Your task to perform on an android device: Show the shopping cart on ebay. Add panasonic triple a to the cart on ebay Image 0: 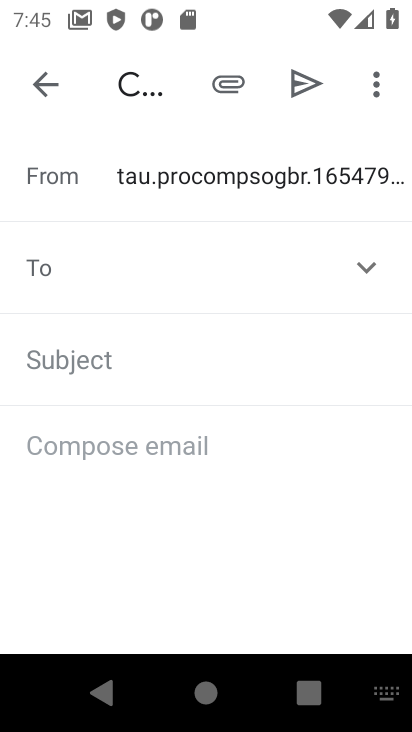
Step 0: press home button
Your task to perform on an android device: Show the shopping cart on ebay. Add panasonic triple a to the cart on ebay Image 1: 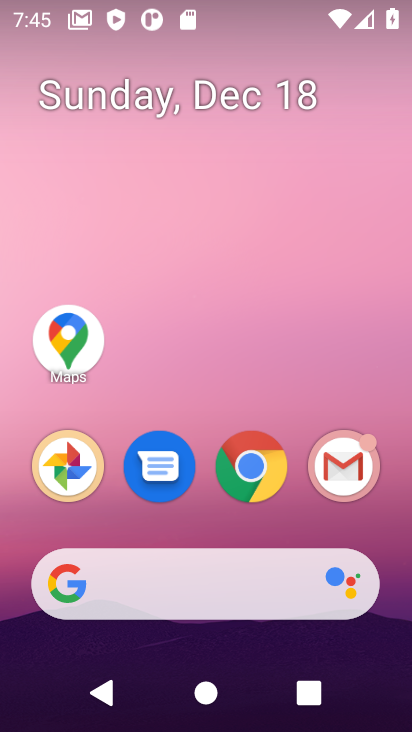
Step 1: click (253, 457)
Your task to perform on an android device: Show the shopping cart on ebay. Add panasonic triple a to the cart on ebay Image 2: 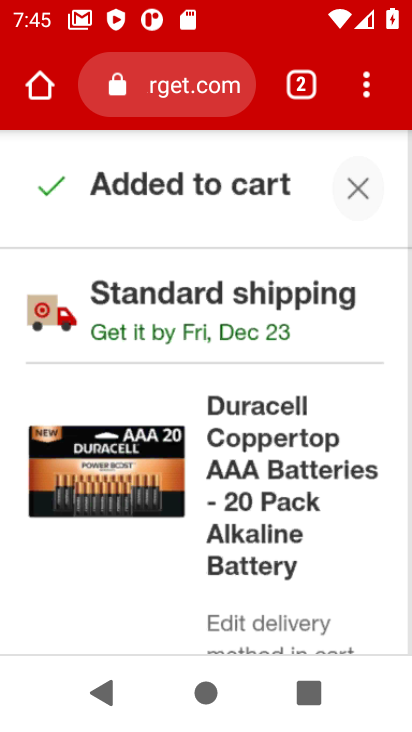
Step 2: click (174, 86)
Your task to perform on an android device: Show the shopping cart on ebay. Add panasonic triple a to the cart on ebay Image 3: 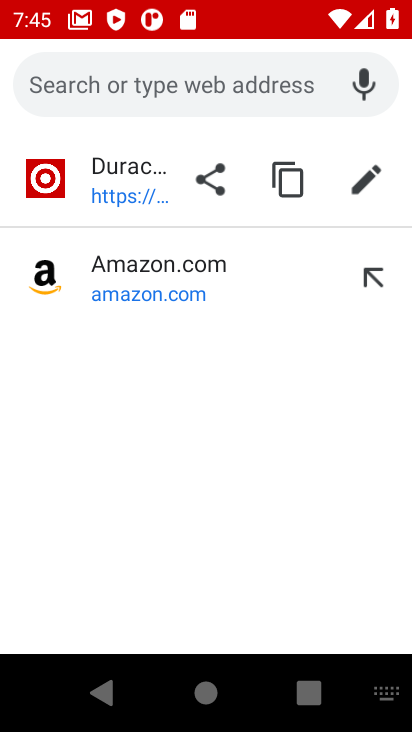
Step 3: type "EBAY"
Your task to perform on an android device: Show the shopping cart on ebay. Add panasonic triple a to the cart on ebay Image 4: 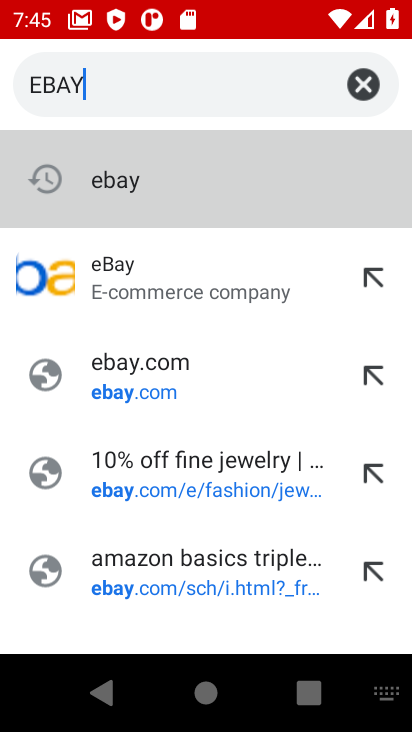
Step 4: click (173, 286)
Your task to perform on an android device: Show the shopping cart on ebay. Add panasonic triple a to the cart on ebay Image 5: 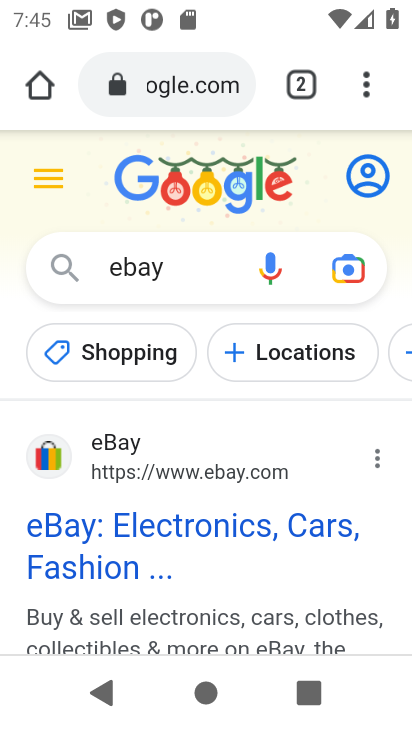
Step 5: click (136, 527)
Your task to perform on an android device: Show the shopping cart on ebay. Add panasonic triple a to the cart on ebay Image 6: 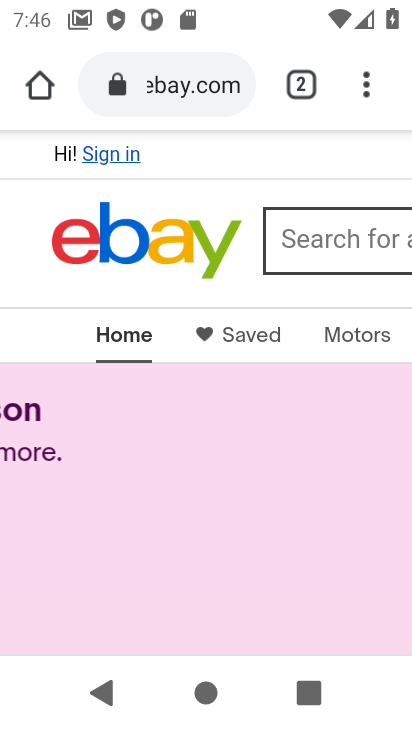
Step 6: click (348, 230)
Your task to perform on an android device: Show the shopping cart on ebay. Add panasonic triple a to the cart on ebay Image 7: 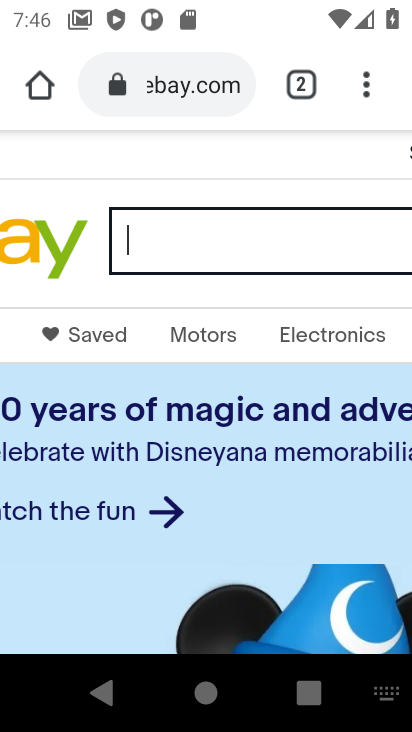
Step 7: type "panasonic triple a"
Your task to perform on an android device: Show the shopping cart on ebay. Add panasonic triple a to the cart on ebay Image 8: 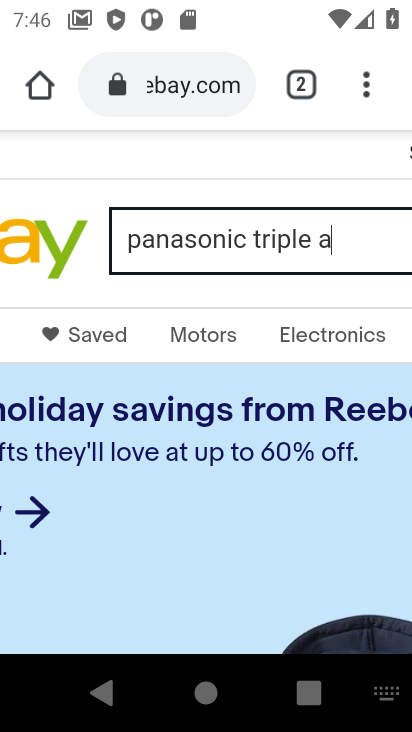
Step 8: drag from (381, 252) to (84, 226)
Your task to perform on an android device: Show the shopping cart on ebay. Add panasonic triple a to the cart on ebay Image 9: 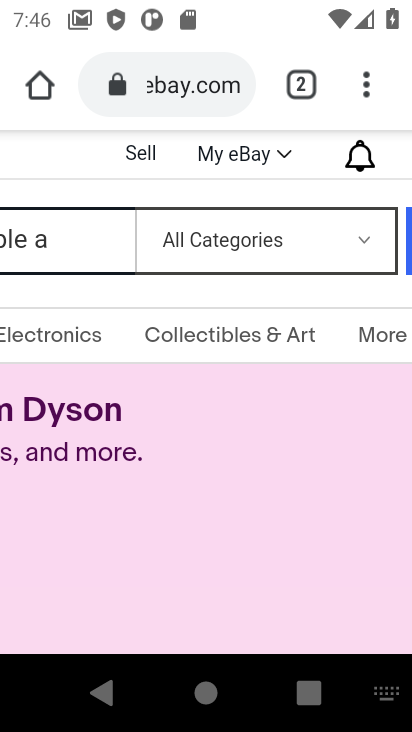
Step 9: drag from (403, 245) to (270, 230)
Your task to perform on an android device: Show the shopping cart on ebay. Add panasonic triple a to the cart on ebay Image 10: 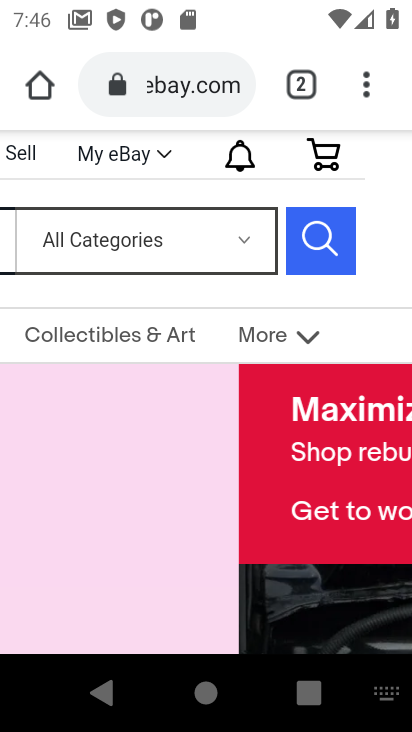
Step 10: click (303, 234)
Your task to perform on an android device: Show the shopping cart on ebay. Add panasonic triple a to the cart on ebay Image 11: 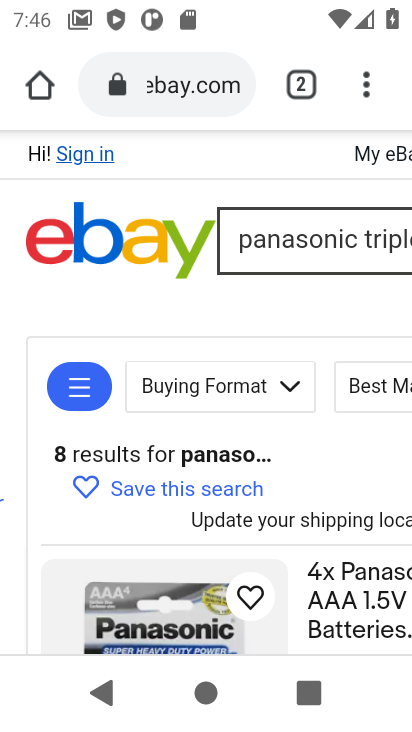
Step 11: click (331, 577)
Your task to perform on an android device: Show the shopping cart on ebay. Add panasonic triple a to the cart on ebay Image 12: 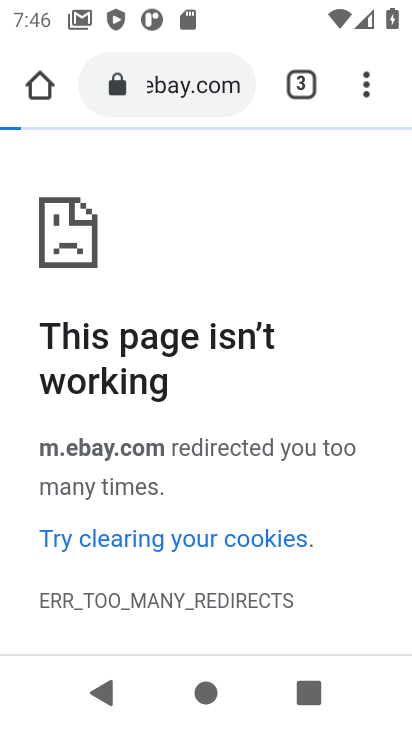
Step 12: task complete